Your task to perform on an android device: Add "logitech g910" to the cart on bestbuy.com Image 0: 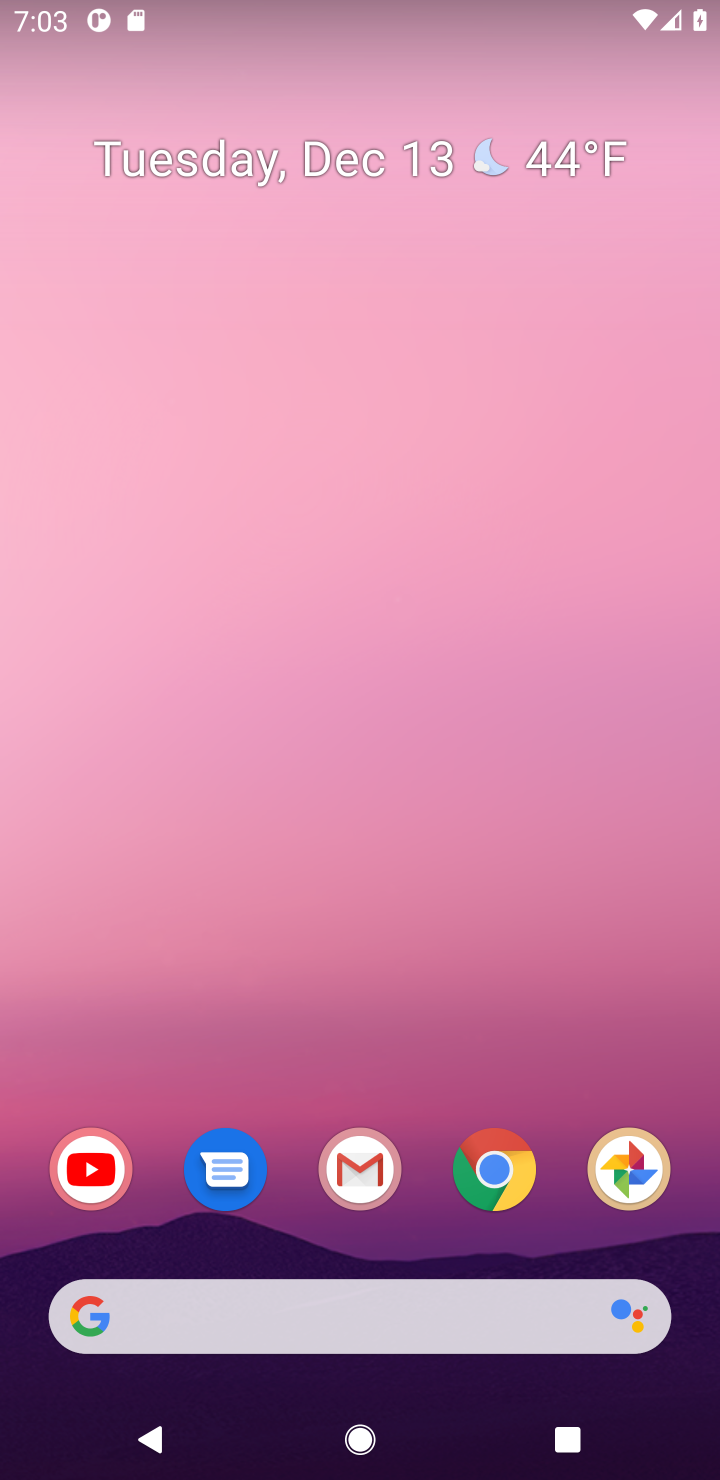
Step 0: click (513, 1137)
Your task to perform on an android device: Add "logitech g910" to the cart on bestbuy.com Image 1: 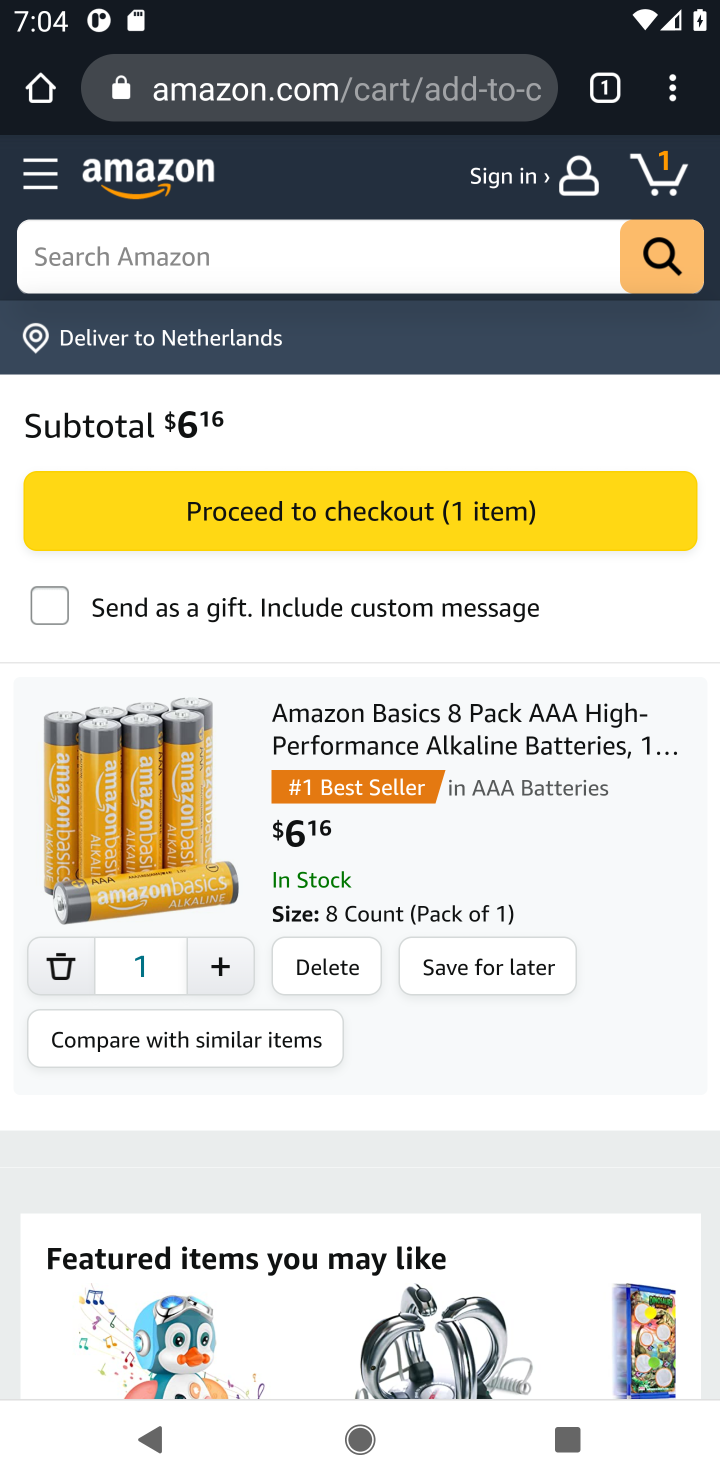
Step 1: click (194, 248)
Your task to perform on an android device: Add "logitech g910" to the cart on bestbuy.com Image 2: 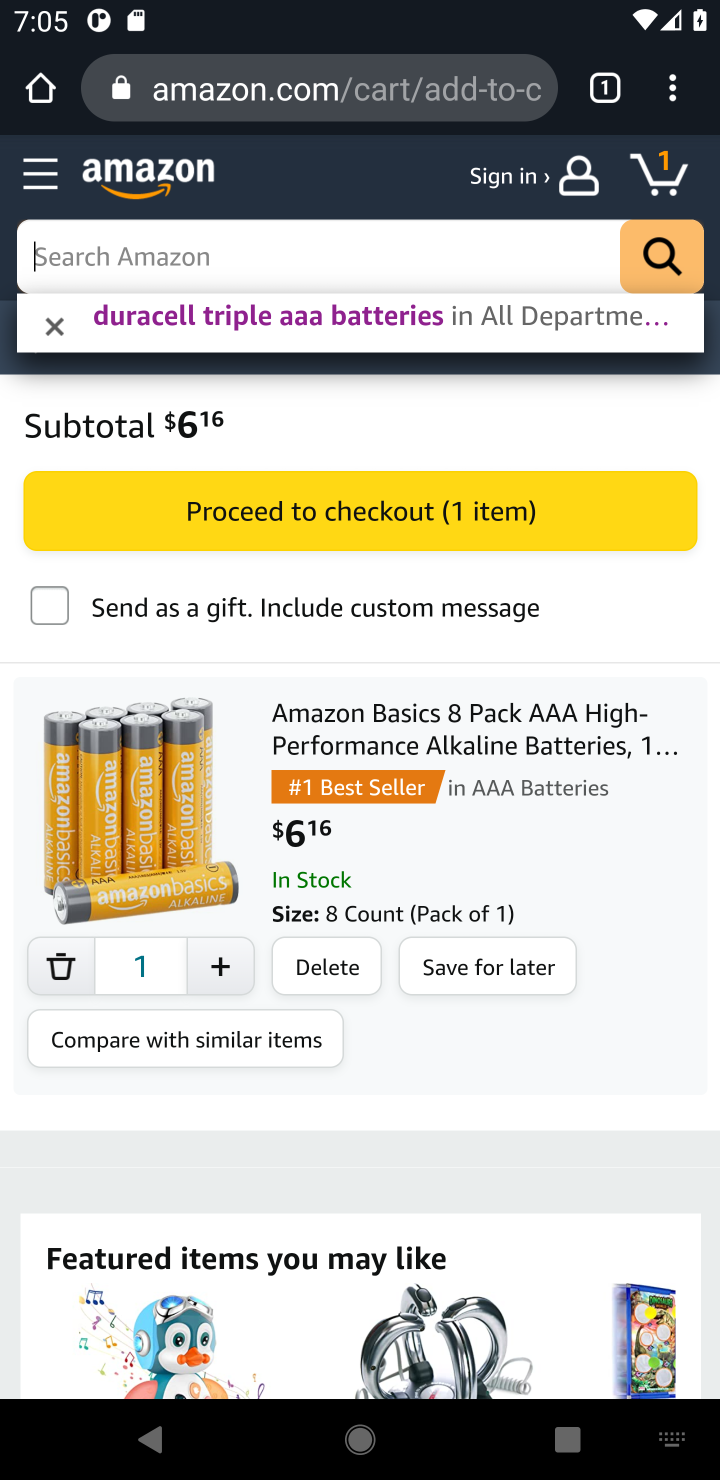
Step 2: type "logitech g910"
Your task to perform on an android device: Add "logitech g910" to the cart on bestbuy.com Image 3: 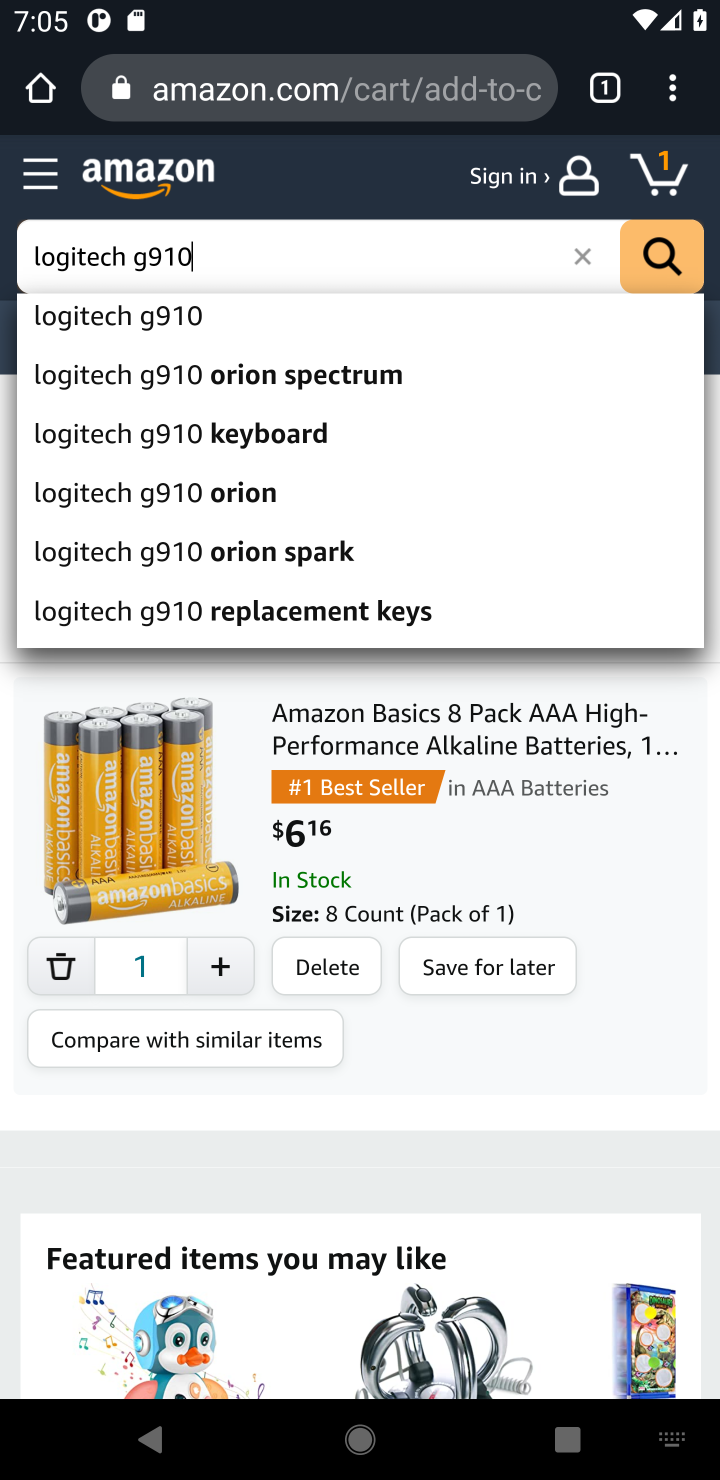
Step 3: click (655, 261)
Your task to perform on an android device: Add "logitech g910" to the cart on bestbuy.com Image 4: 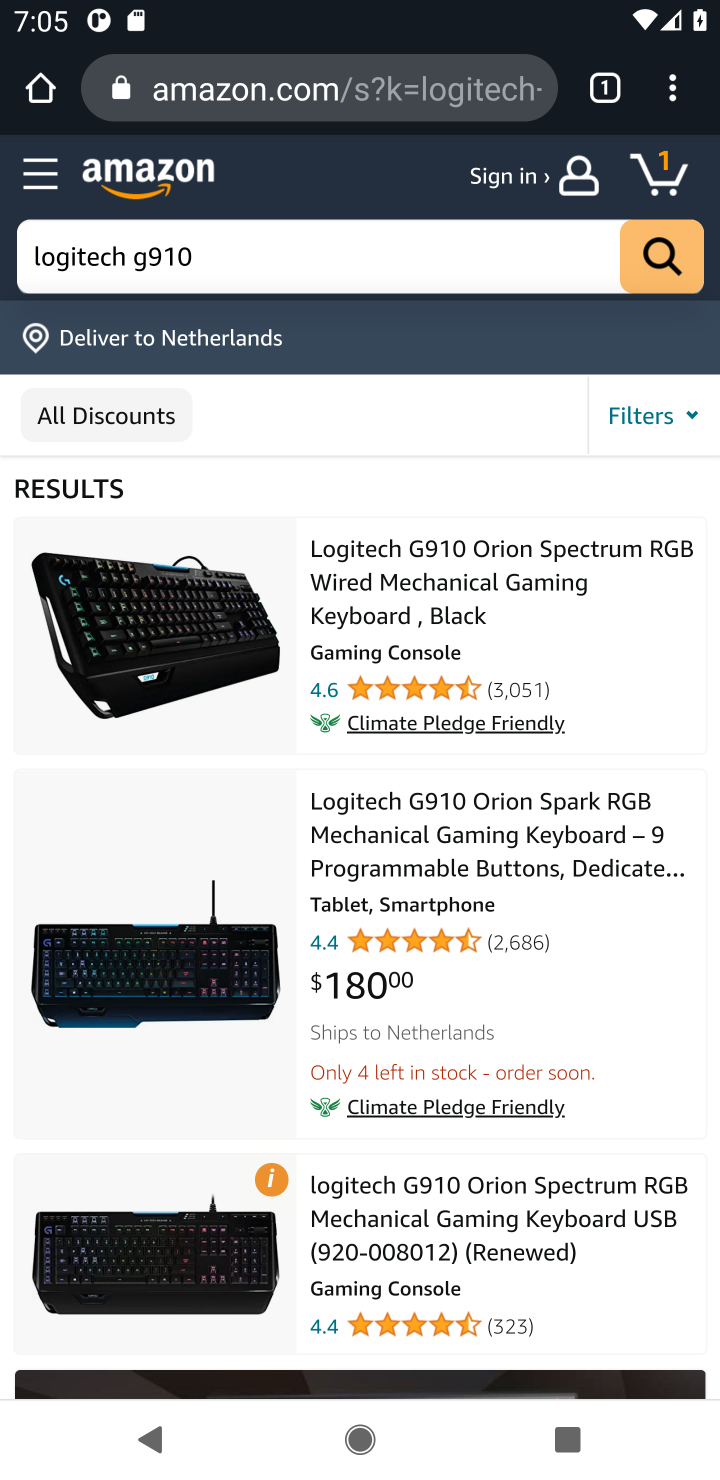
Step 4: click (435, 542)
Your task to perform on an android device: Add "logitech g910" to the cart on bestbuy.com Image 5: 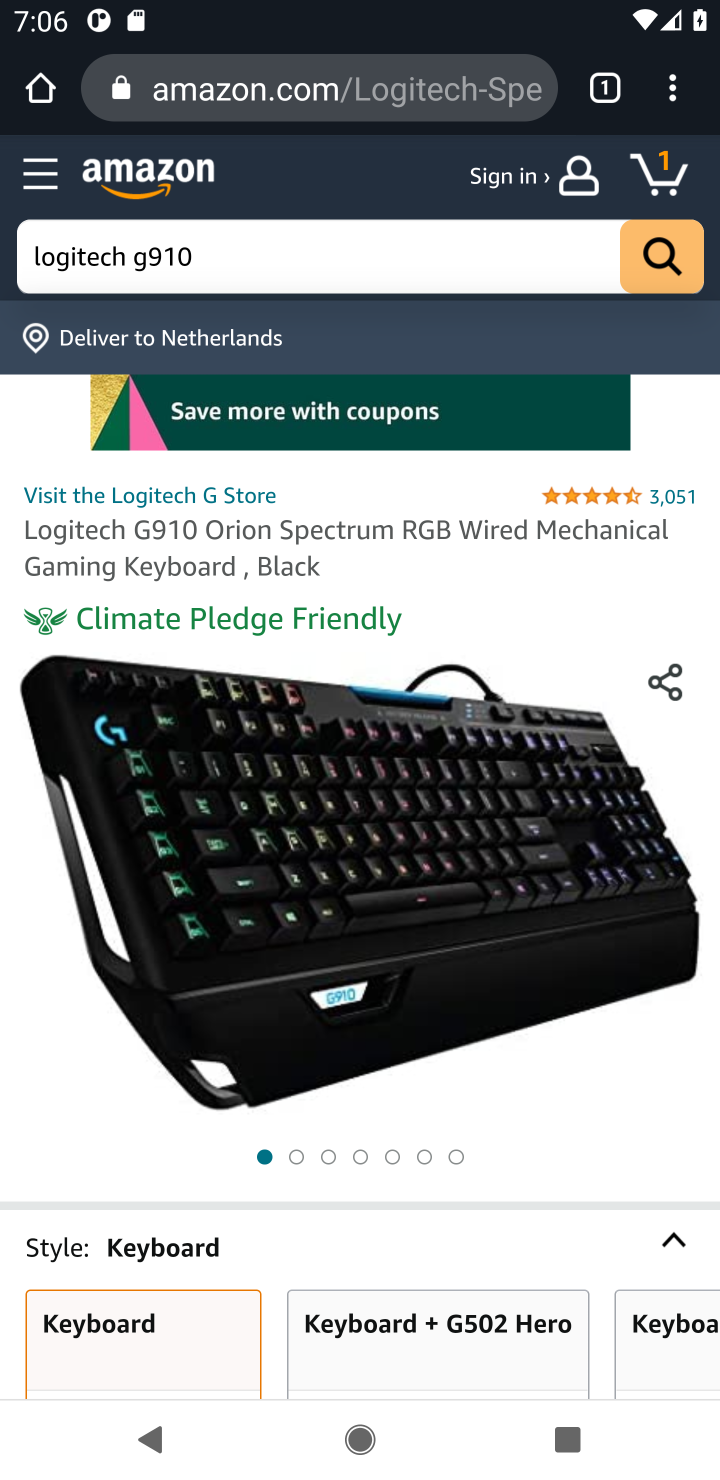
Step 5: drag from (340, 1045) to (313, 701)
Your task to perform on an android device: Add "logitech g910" to the cart on bestbuy.com Image 6: 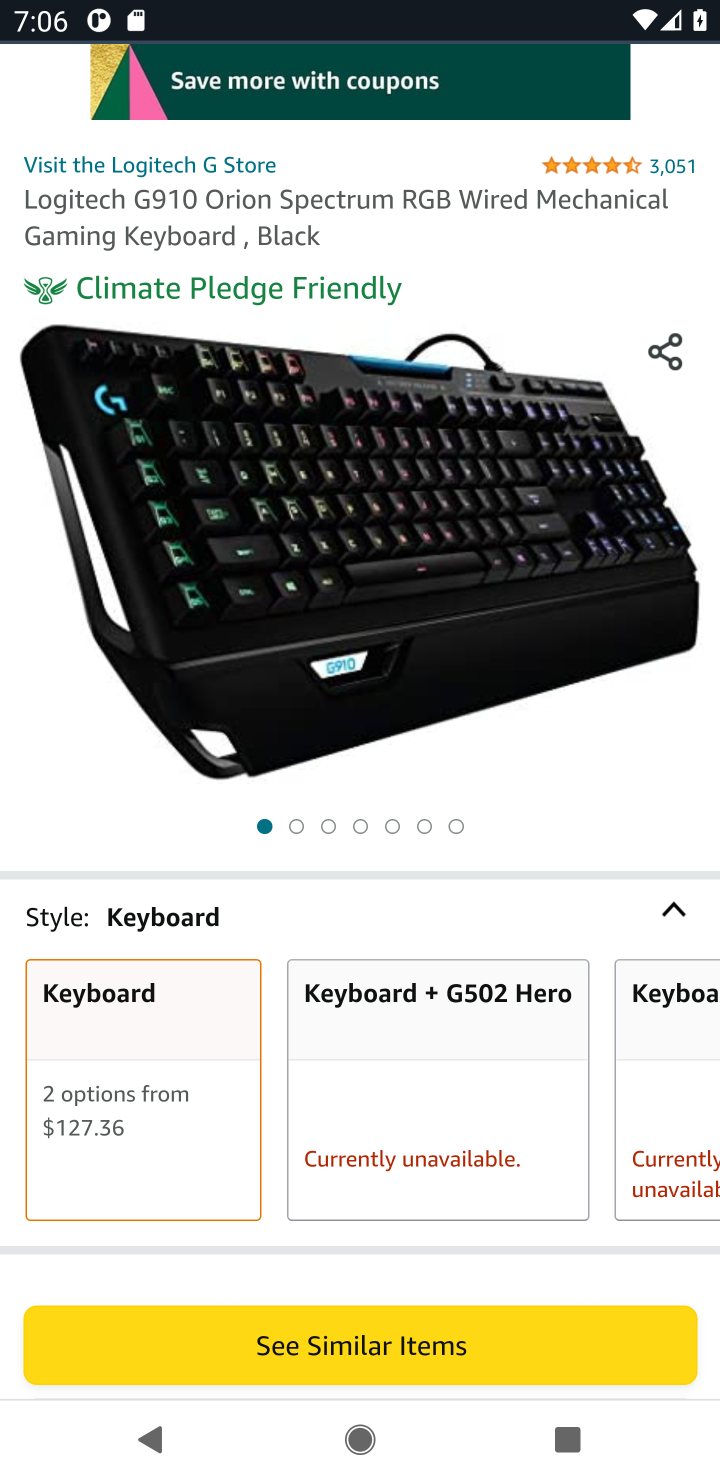
Step 6: drag from (410, 1255) to (357, 907)
Your task to perform on an android device: Add "logitech g910" to the cart on bestbuy.com Image 7: 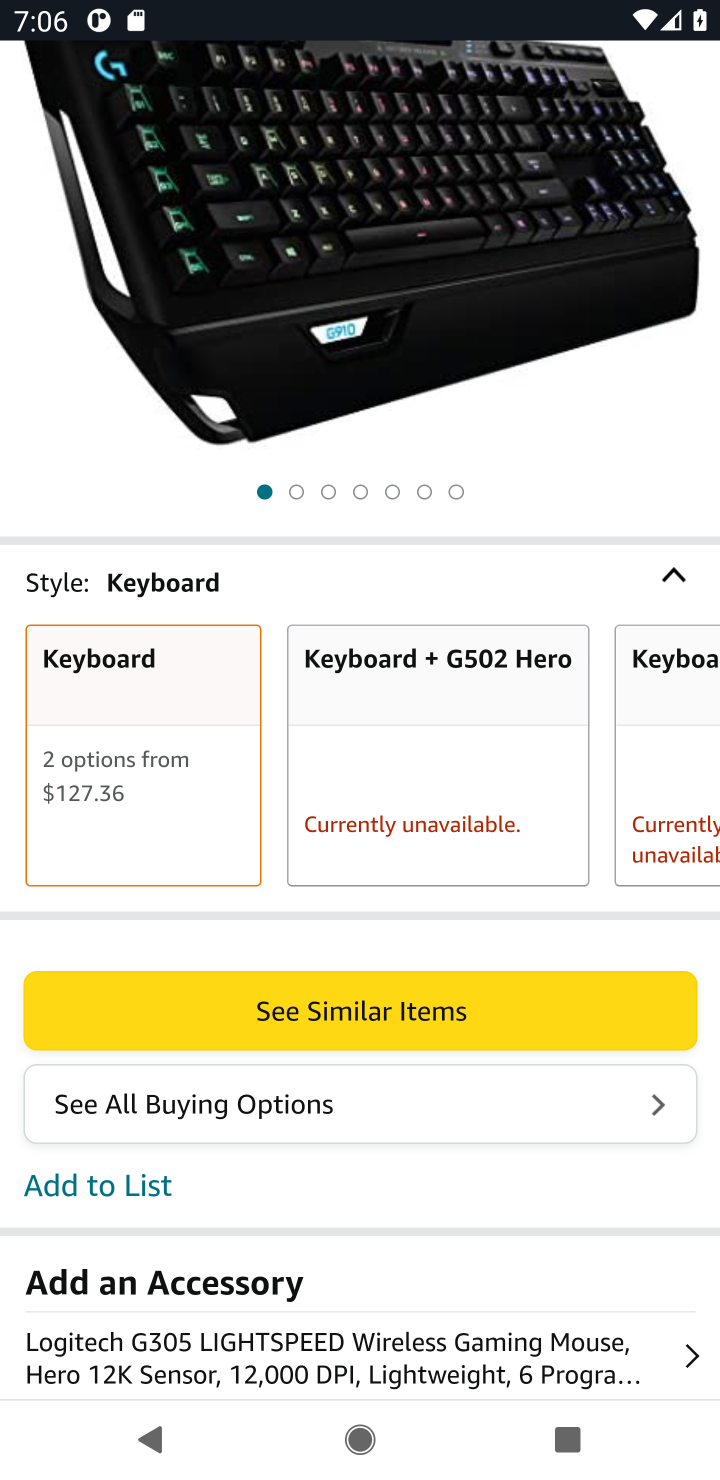
Step 7: drag from (447, 1161) to (384, 725)
Your task to perform on an android device: Add "logitech g910" to the cart on bestbuy.com Image 8: 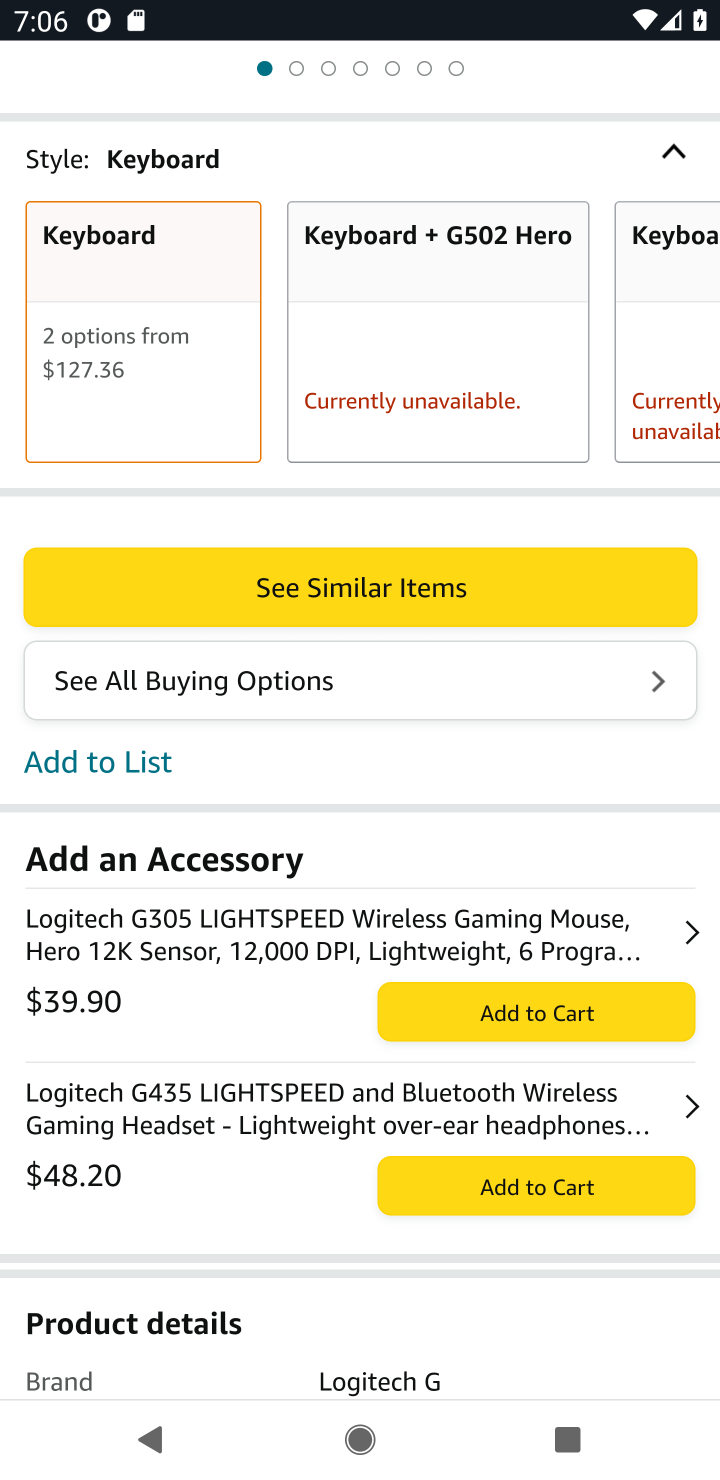
Step 8: click (404, 626)
Your task to perform on an android device: Add "logitech g910" to the cart on bestbuy.com Image 9: 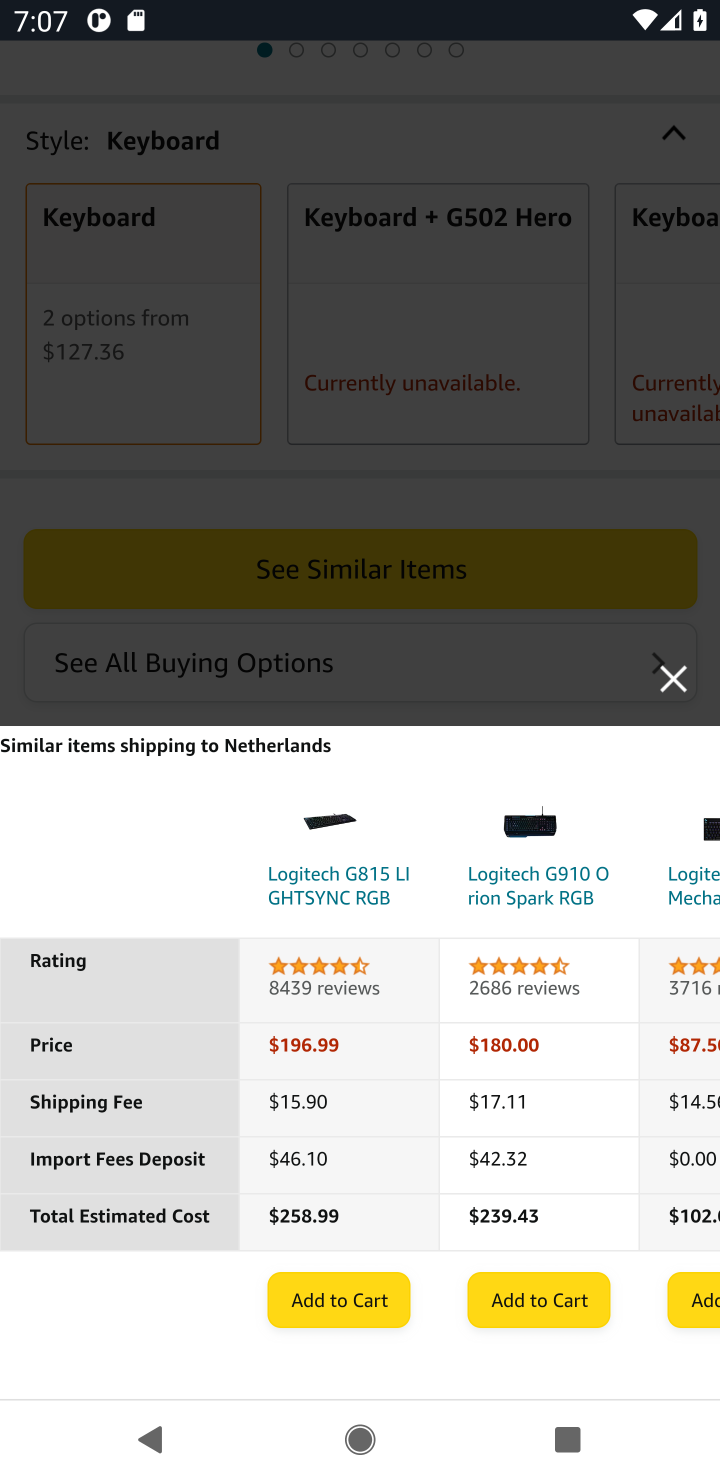
Step 9: task complete